Your task to perform on an android device: empty trash in google photos Image 0: 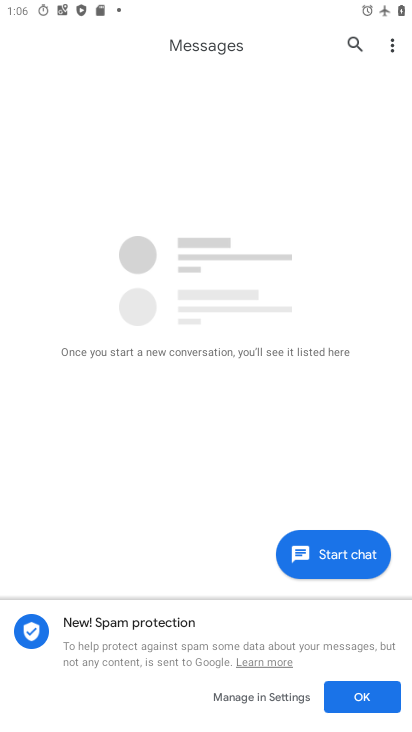
Step 0: press home button
Your task to perform on an android device: empty trash in google photos Image 1: 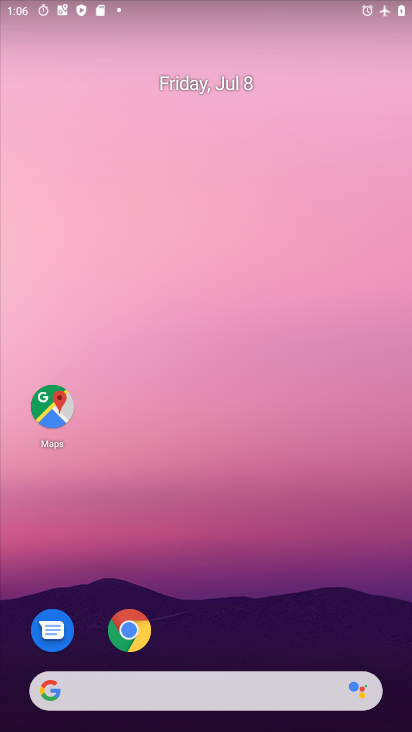
Step 1: drag from (166, 616) to (176, 154)
Your task to perform on an android device: empty trash in google photos Image 2: 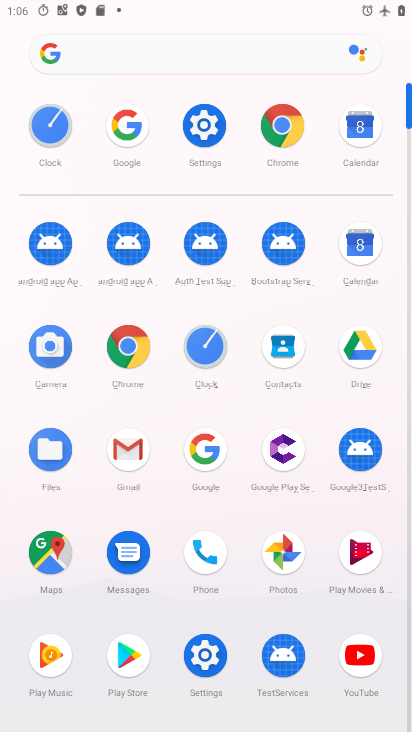
Step 2: click (266, 553)
Your task to perform on an android device: empty trash in google photos Image 3: 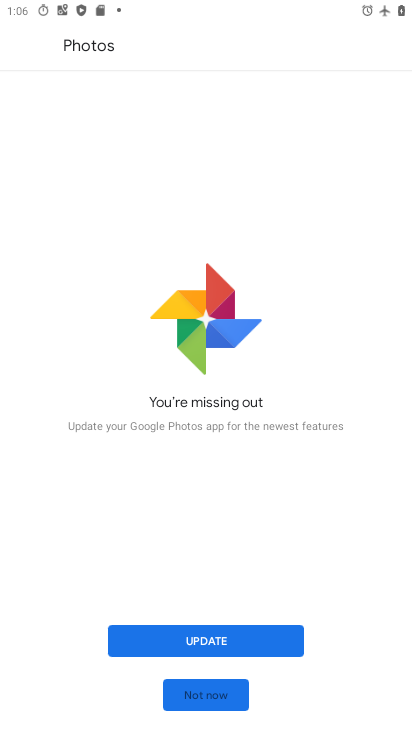
Step 3: click (199, 701)
Your task to perform on an android device: empty trash in google photos Image 4: 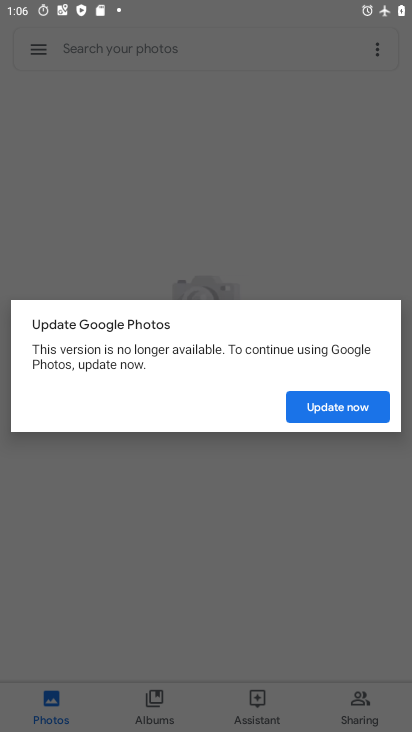
Step 4: click (308, 408)
Your task to perform on an android device: empty trash in google photos Image 5: 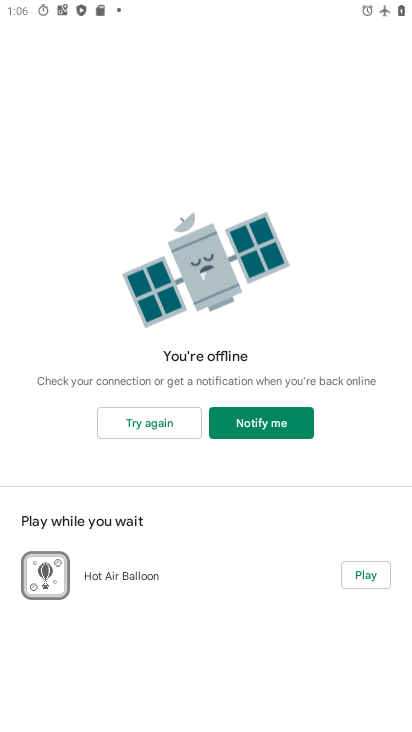
Step 5: press back button
Your task to perform on an android device: empty trash in google photos Image 6: 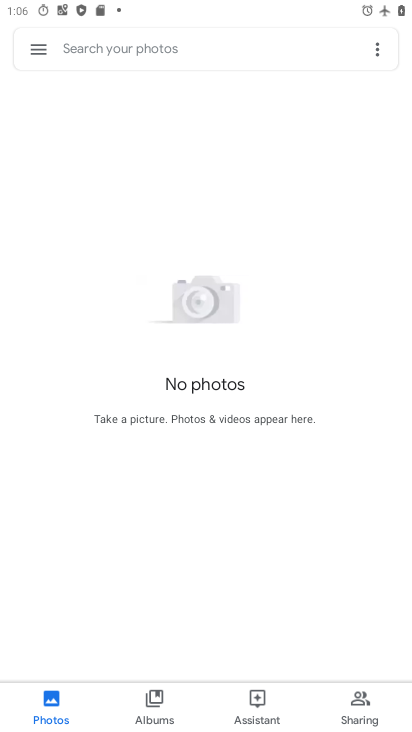
Step 6: click (41, 46)
Your task to perform on an android device: empty trash in google photos Image 7: 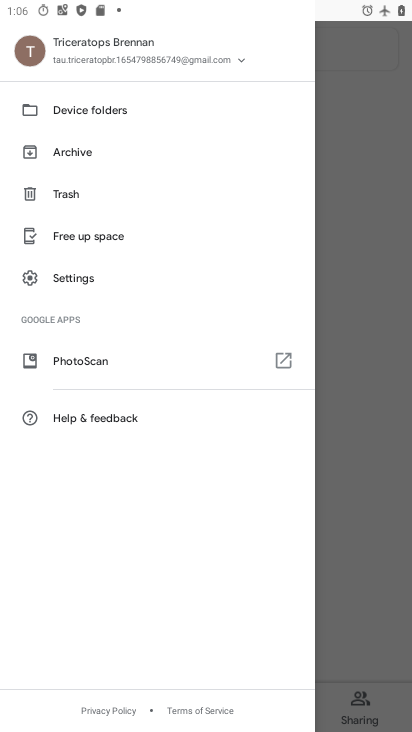
Step 7: click (75, 193)
Your task to perform on an android device: empty trash in google photos Image 8: 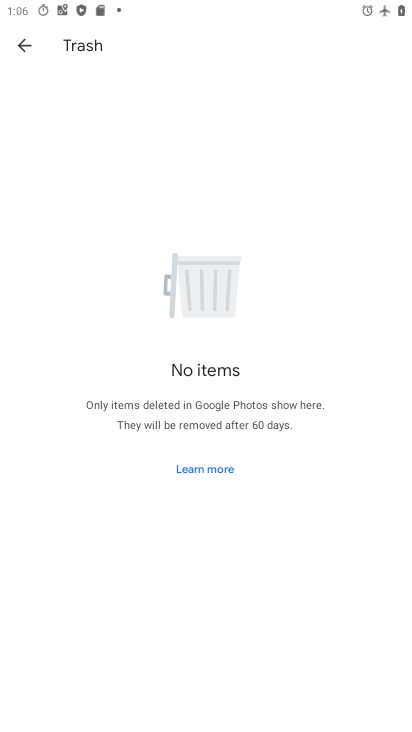
Step 8: task complete